Your task to perform on an android device: turn off data saver in the chrome app Image 0: 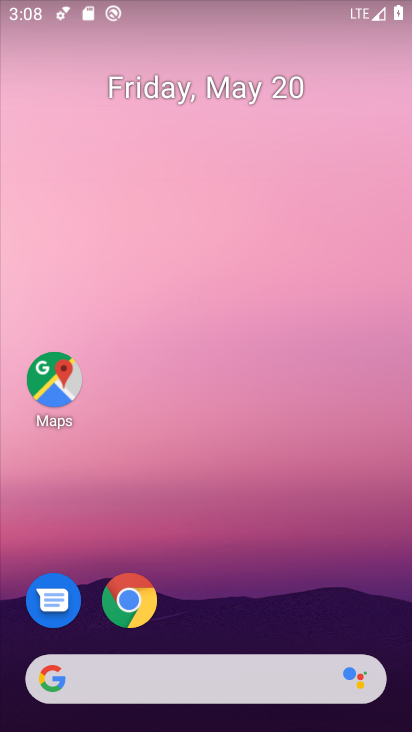
Step 0: drag from (370, 605) to (331, 129)
Your task to perform on an android device: turn off data saver in the chrome app Image 1: 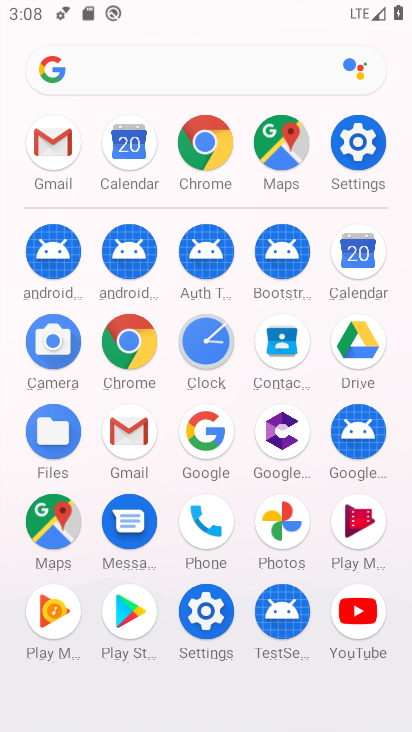
Step 1: click (134, 353)
Your task to perform on an android device: turn off data saver in the chrome app Image 2: 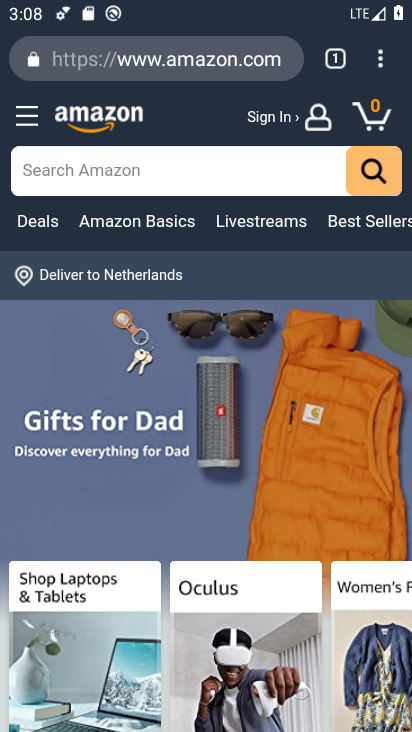
Step 2: click (379, 66)
Your task to perform on an android device: turn off data saver in the chrome app Image 3: 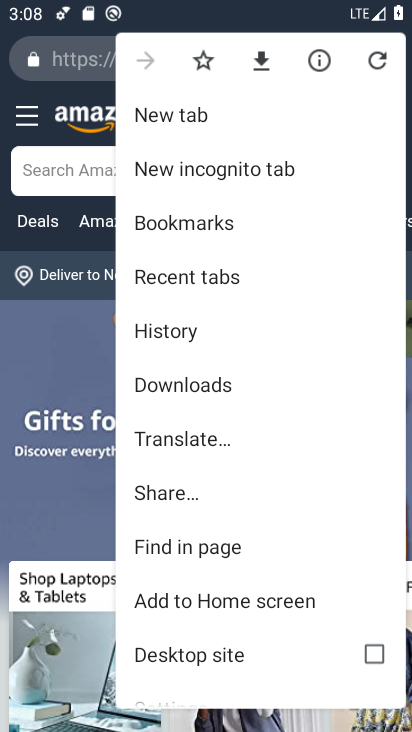
Step 3: drag from (306, 436) to (324, 293)
Your task to perform on an android device: turn off data saver in the chrome app Image 4: 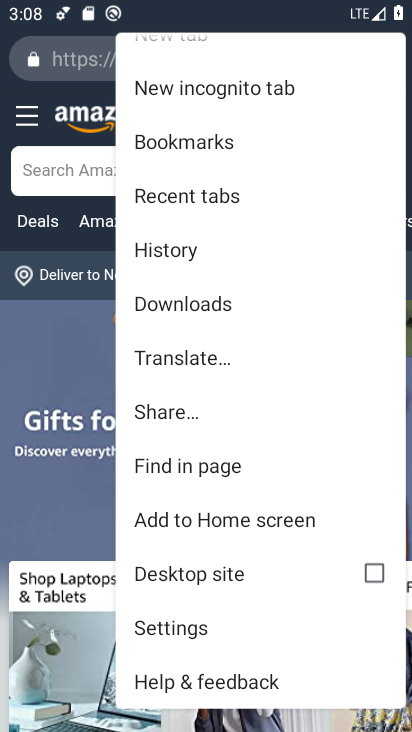
Step 4: drag from (317, 529) to (326, 376)
Your task to perform on an android device: turn off data saver in the chrome app Image 5: 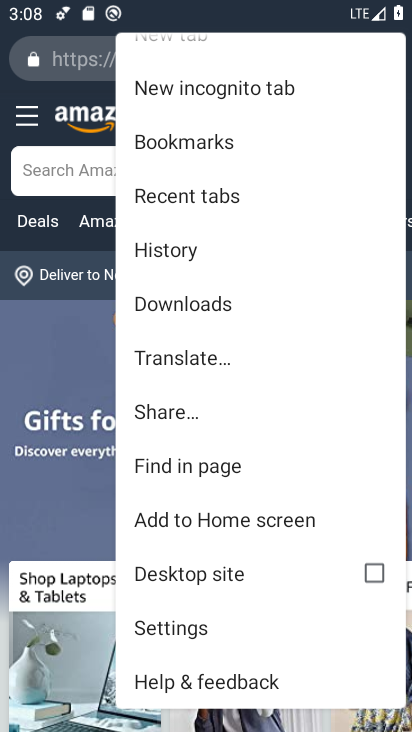
Step 5: drag from (323, 345) to (323, 476)
Your task to perform on an android device: turn off data saver in the chrome app Image 6: 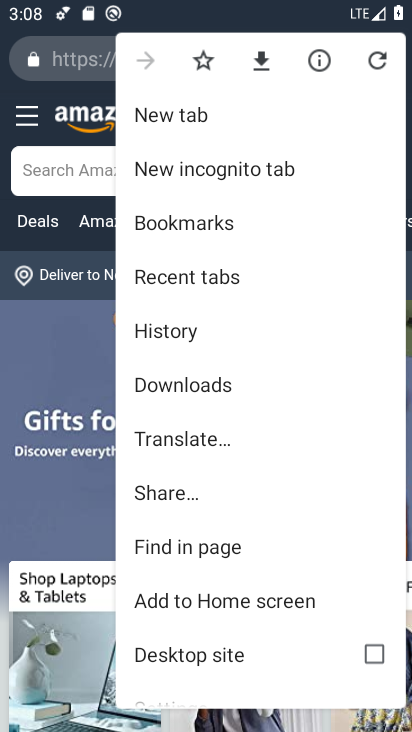
Step 6: drag from (318, 359) to (314, 472)
Your task to perform on an android device: turn off data saver in the chrome app Image 7: 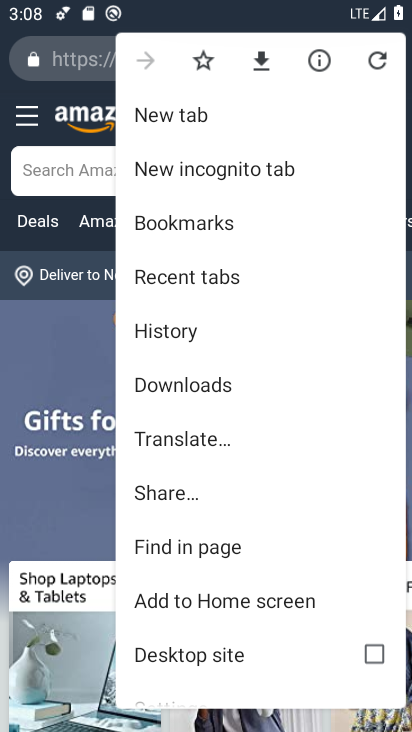
Step 7: drag from (314, 487) to (317, 337)
Your task to perform on an android device: turn off data saver in the chrome app Image 8: 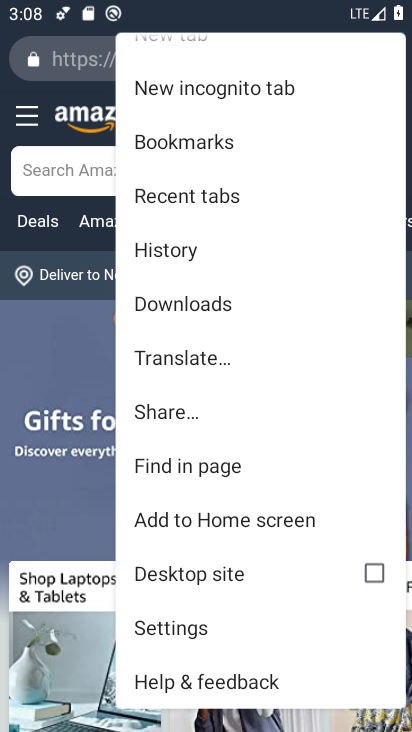
Step 8: drag from (318, 580) to (319, 415)
Your task to perform on an android device: turn off data saver in the chrome app Image 9: 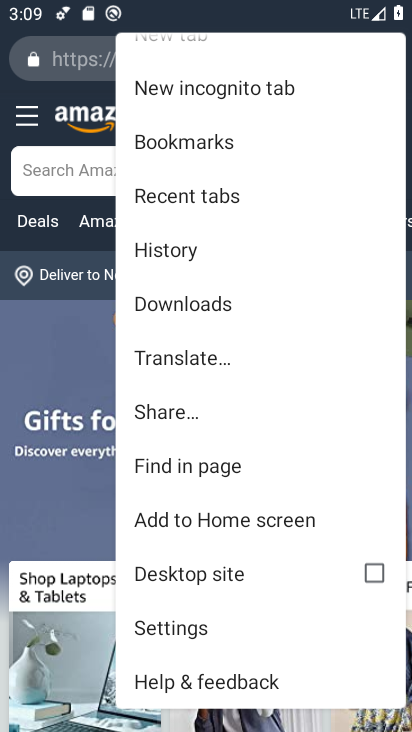
Step 9: click (187, 636)
Your task to perform on an android device: turn off data saver in the chrome app Image 10: 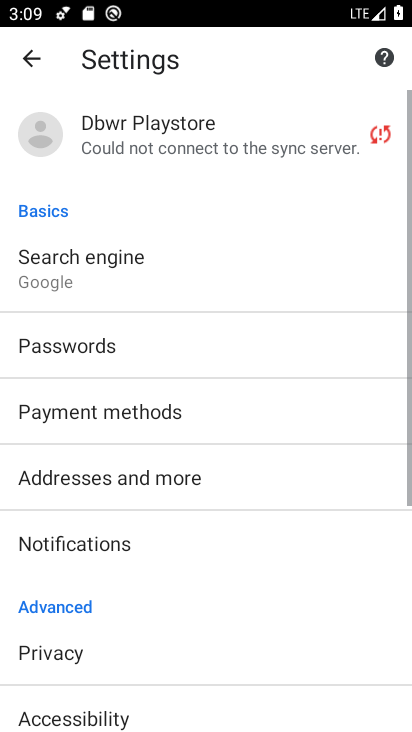
Step 10: drag from (301, 593) to (304, 396)
Your task to perform on an android device: turn off data saver in the chrome app Image 11: 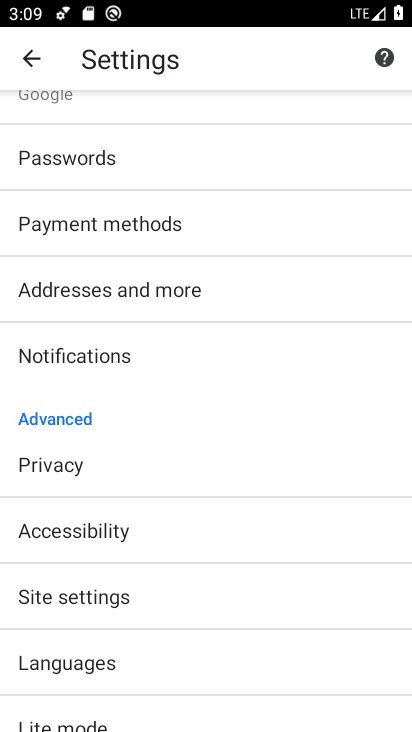
Step 11: drag from (300, 637) to (302, 487)
Your task to perform on an android device: turn off data saver in the chrome app Image 12: 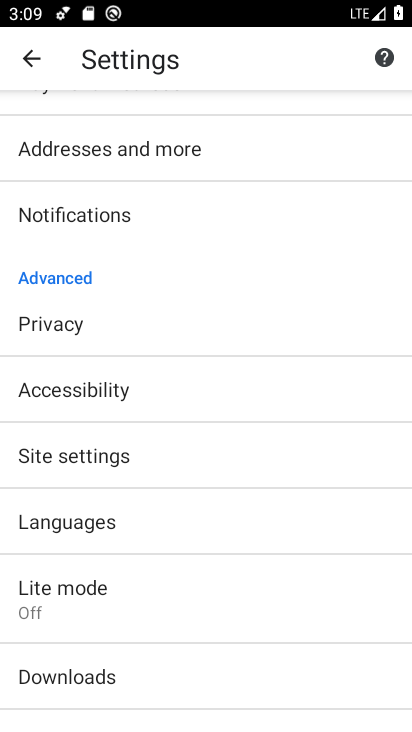
Step 12: drag from (302, 634) to (295, 480)
Your task to perform on an android device: turn off data saver in the chrome app Image 13: 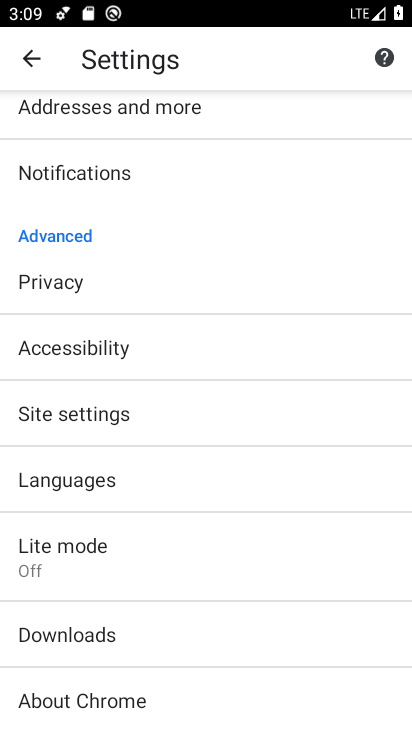
Step 13: drag from (297, 681) to (297, 467)
Your task to perform on an android device: turn off data saver in the chrome app Image 14: 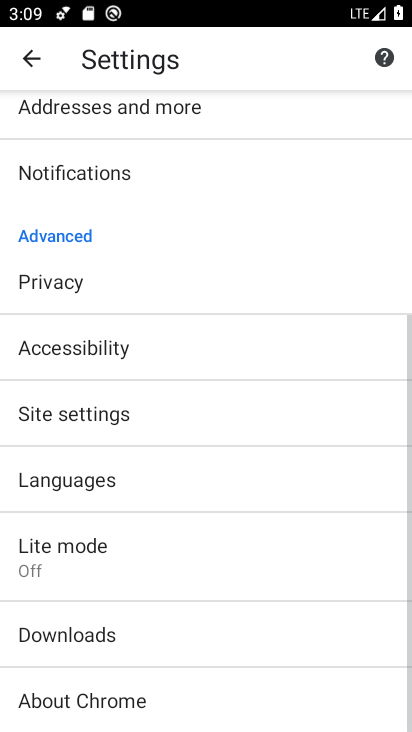
Step 14: drag from (296, 399) to (289, 517)
Your task to perform on an android device: turn off data saver in the chrome app Image 15: 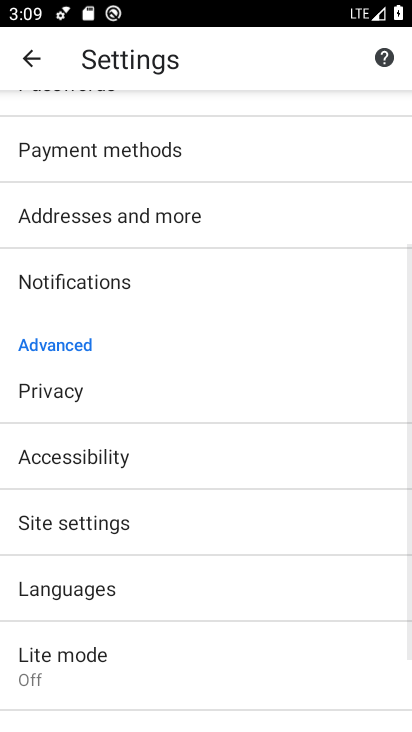
Step 15: drag from (287, 399) to (282, 518)
Your task to perform on an android device: turn off data saver in the chrome app Image 16: 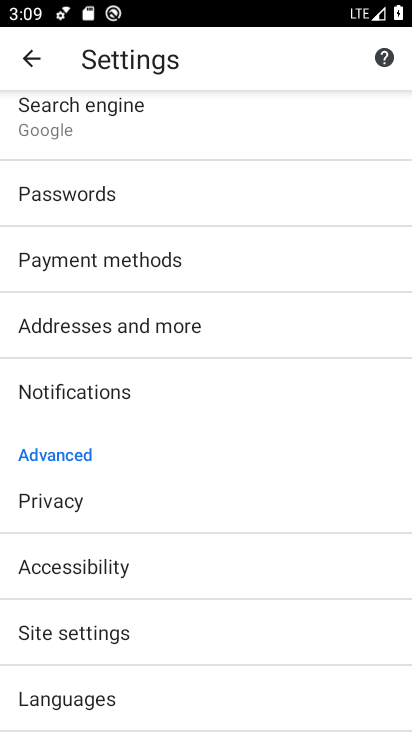
Step 16: drag from (277, 374) to (279, 475)
Your task to perform on an android device: turn off data saver in the chrome app Image 17: 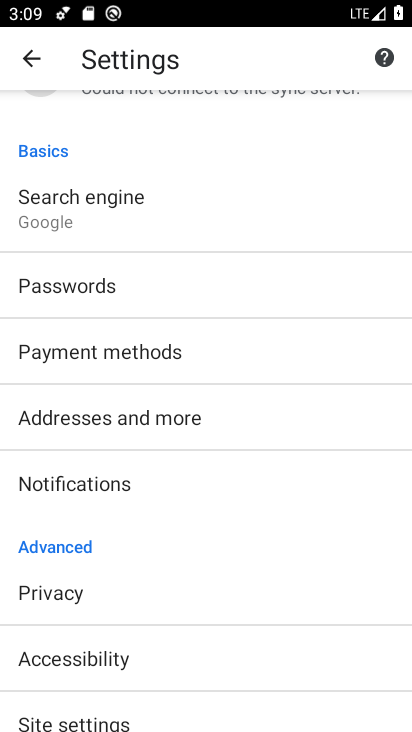
Step 17: drag from (277, 330) to (272, 484)
Your task to perform on an android device: turn off data saver in the chrome app Image 18: 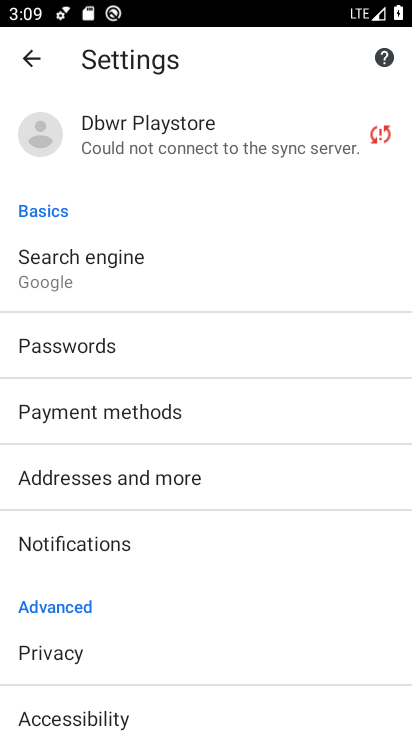
Step 18: drag from (282, 342) to (285, 531)
Your task to perform on an android device: turn off data saver in the chrome app Image 19: 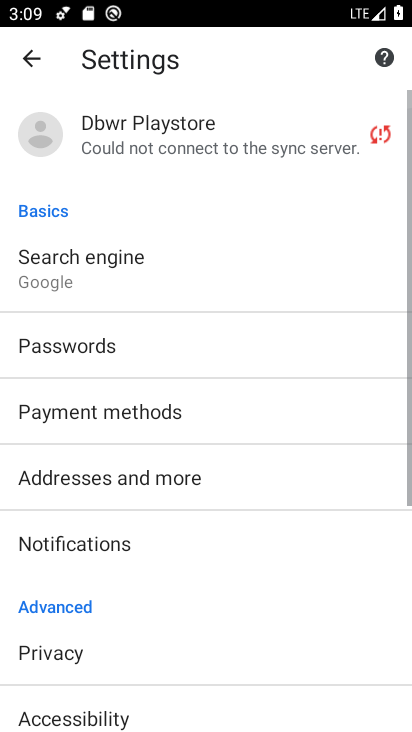
Step 19: drag from (282, 589) to (282, 459)
Your task to perform on an android device: turn off data saver in the chrome app Image 20: 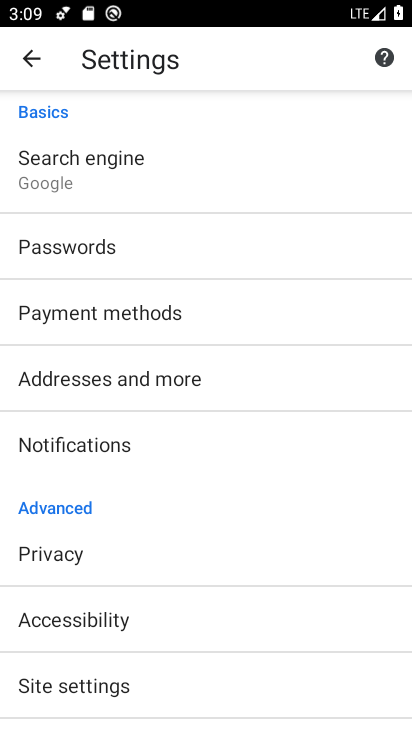
Step 20: drag from (292, 551) to (293, 493)
Your task to perform on an android device: turn off data saver in the chrome app Image 21: 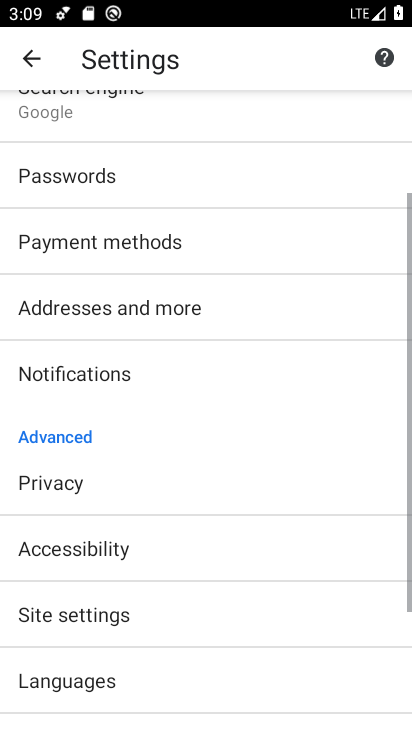
Step 21: drag from (277, 595) to (279, 523)
Your task to perform on an android device: turn off data saver in the chrome app Image 22: 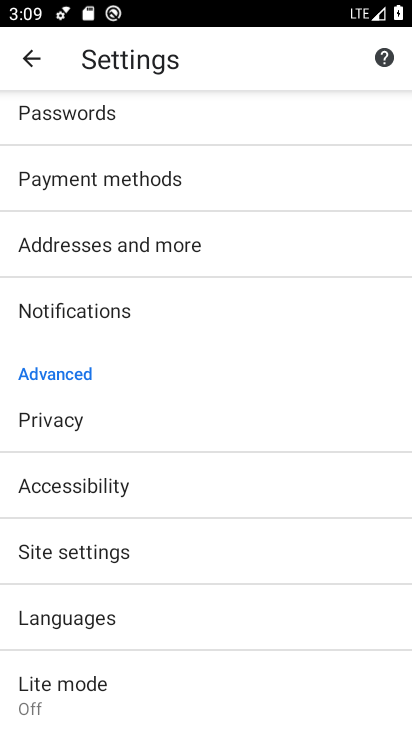
Step 22: drag from (277, 638) to (277, 534)
Your task to perform on an android device: turn off data saver in the chrome app Image 23: 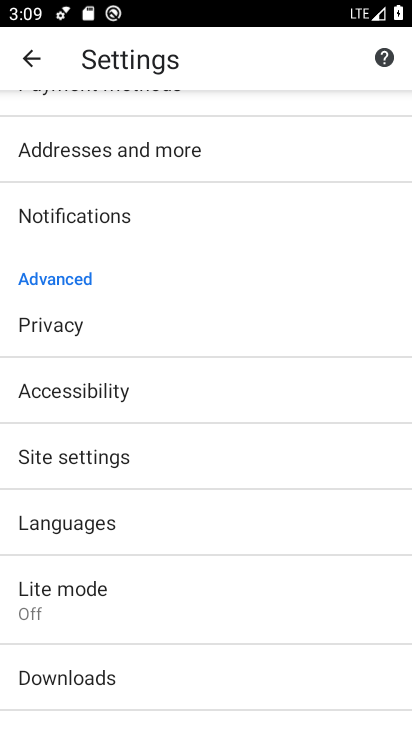
Step 23: drag from (283, 645) to (282, 521)
Your task to perform on an android device: turn off data saver in the chrome app Image 24: 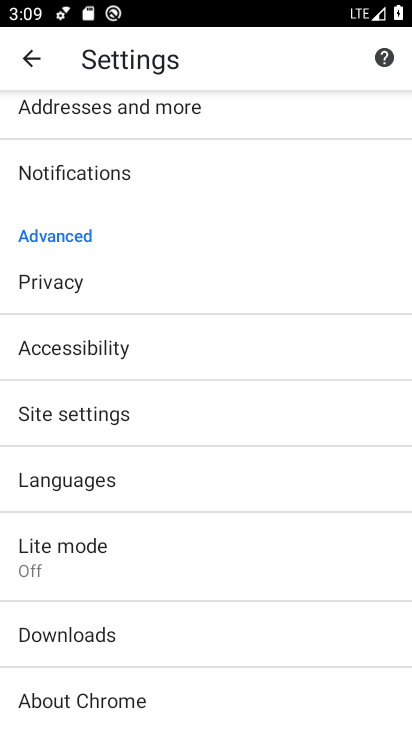
Step 24: drag from (283, 654) to (283, 546)
Your task to perform on an android device: turn off data saver in the chrome app Image 25: 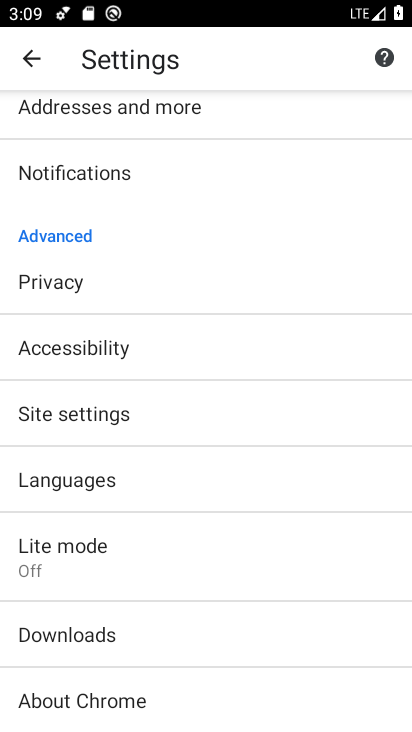
Step 25: drag from (257, 444) to (252, 551)
Your task to perform on an android device: turn off data saver in the chrome app Image 26: 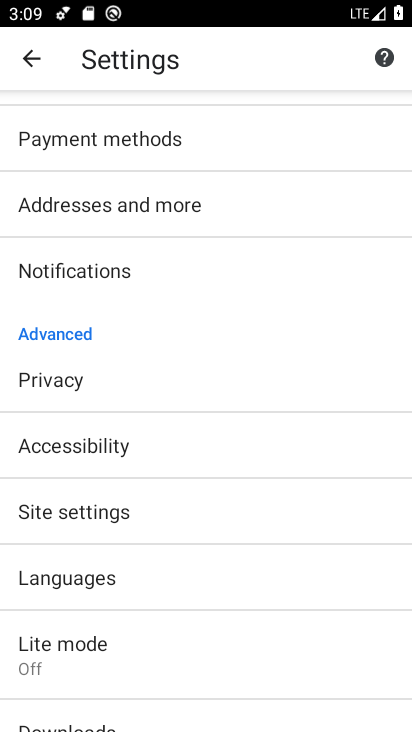
Step 26: drag from (255, 391) to (261, 488)
Your task to perform on an android device: turn off data saver in the chrome app Image 27: 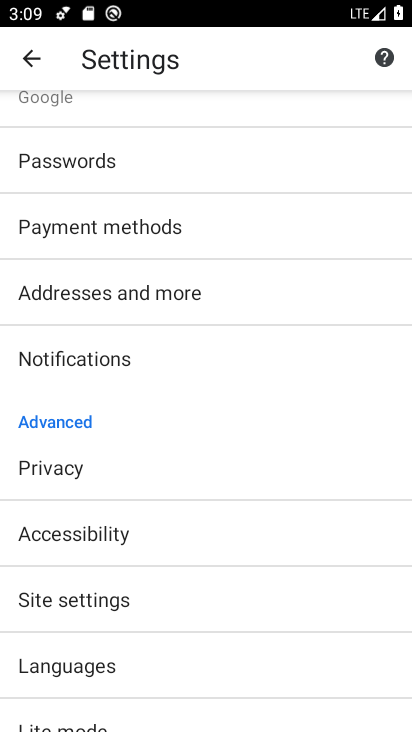
Step 27: drag from (261, 355) to (260, 507)
Your task to perform on an android device: turn off data saver in the chrome app Image 28: 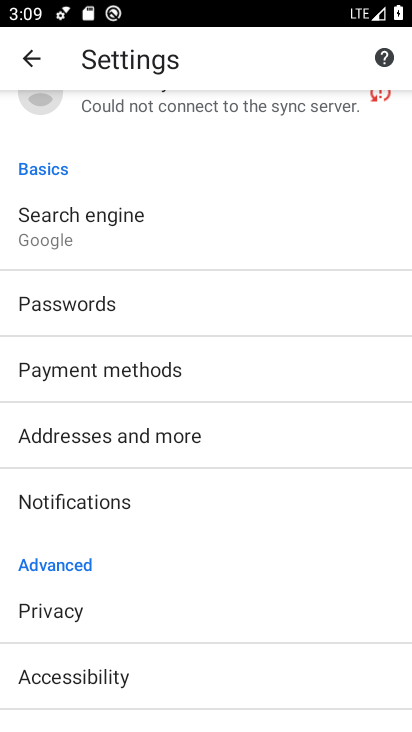
Step 28: drag from (253, 374) to (253, 471)
Your task to perform on an android device: turn off data saver in the chrome app Image 29: 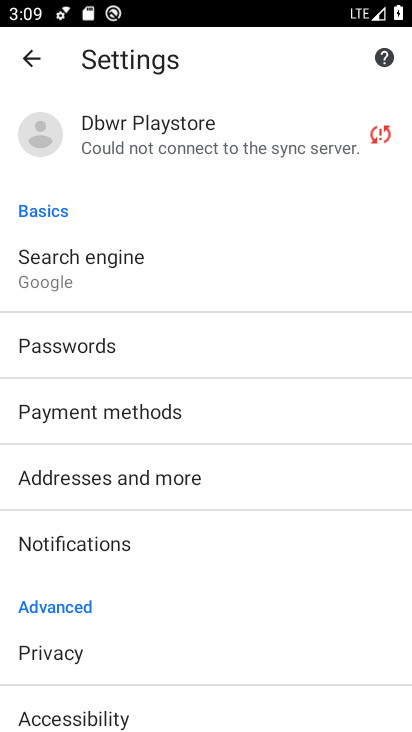
Step 29: drag from (261, 337) to (263, 480)
Your task to perform on an android device: turn off data saver in the chrome app Image 30: 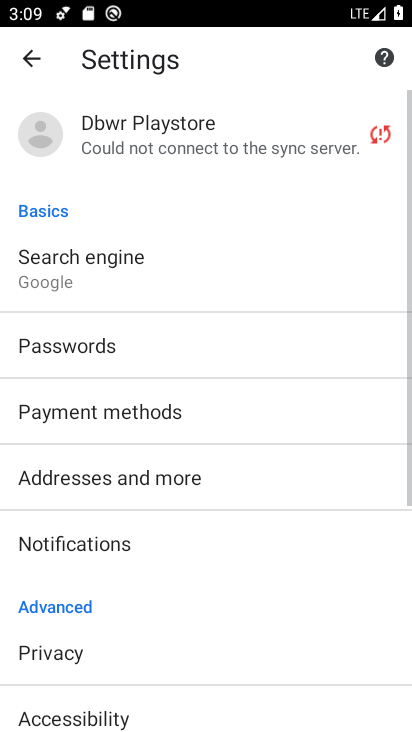
Step 30: drag from (274, 578) to (281, 452)
Your task to perform on an android device: turn off data saver in the chrome app Image 31: 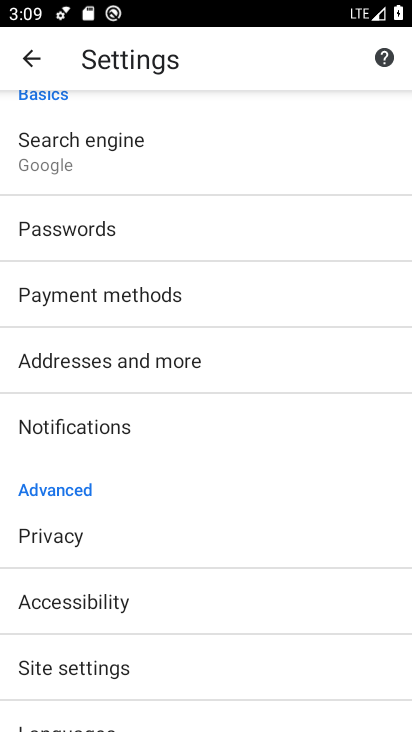
Step 31: drag from (267, 600) to (266, 522)
Your task to perform on an android device: turn off data saver in the chrome app Image 32: 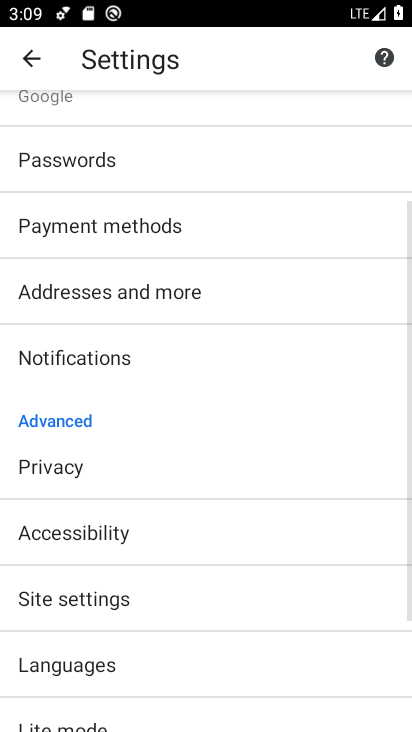
Step 32: drag from (260, 628) to (262, 531)
Your task to perform on an android device: turn off data saver in the chrome app Image 33: 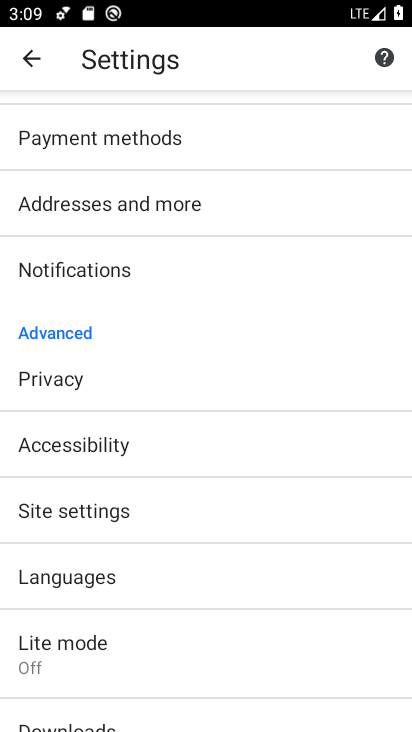
Step 33: drag from (281, 640) to (279, 536)
Your task to perform on an android device: turn off data saver in the chrome app Image 34: 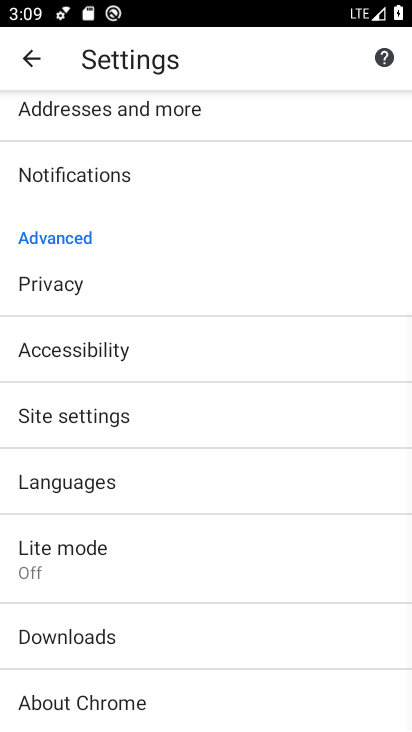
Step 34: drag from (271, 646) to (271, 530)
Your task to perform on an android device: turn off data saver in the chrome app Image 35: 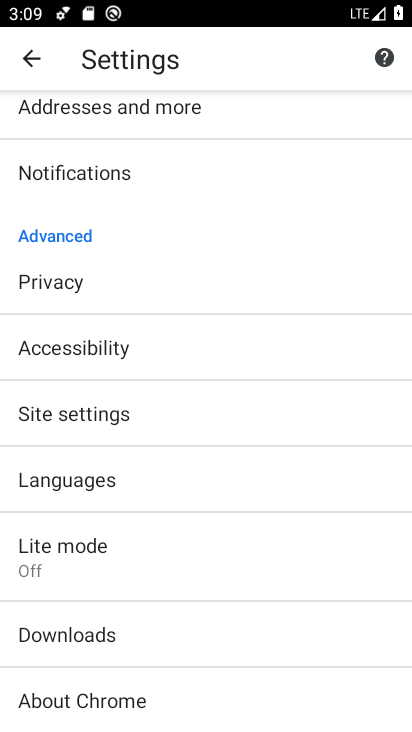
Step 35: drag from (272, 453) to (263, 518)
Your task to perform on an android device: turn off data saver in the chrome app Image 36: 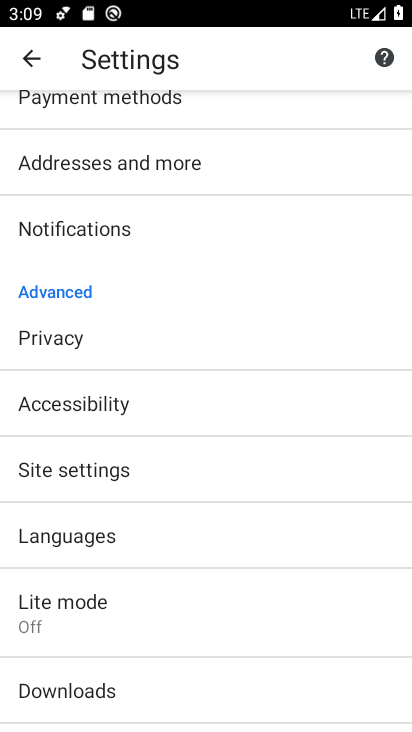
Step 36: click (194, 629)
Your task to perform on an android device: turn off data saver in the chrome app Image 37: 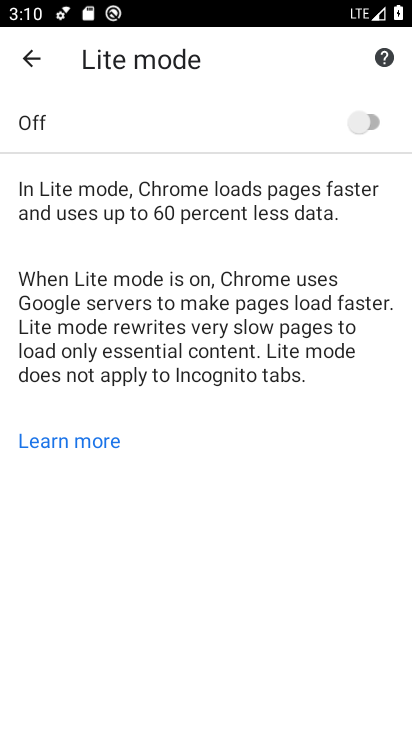
Step 37: task complete